Your task to perform on an android device: Open Google Chrome and click the shortcut for Amazon.com Image 0: 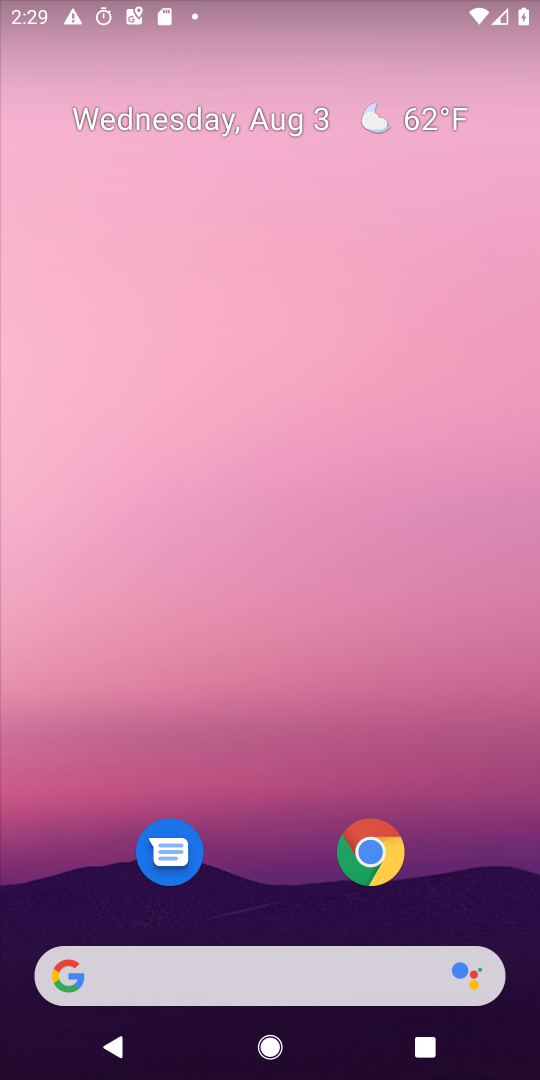
Step 0: drag from (457, 872) to (469, 750)
Your task to perform on an android device: Open Google Chrome and click the shortcut for Amazon.com Image 1: 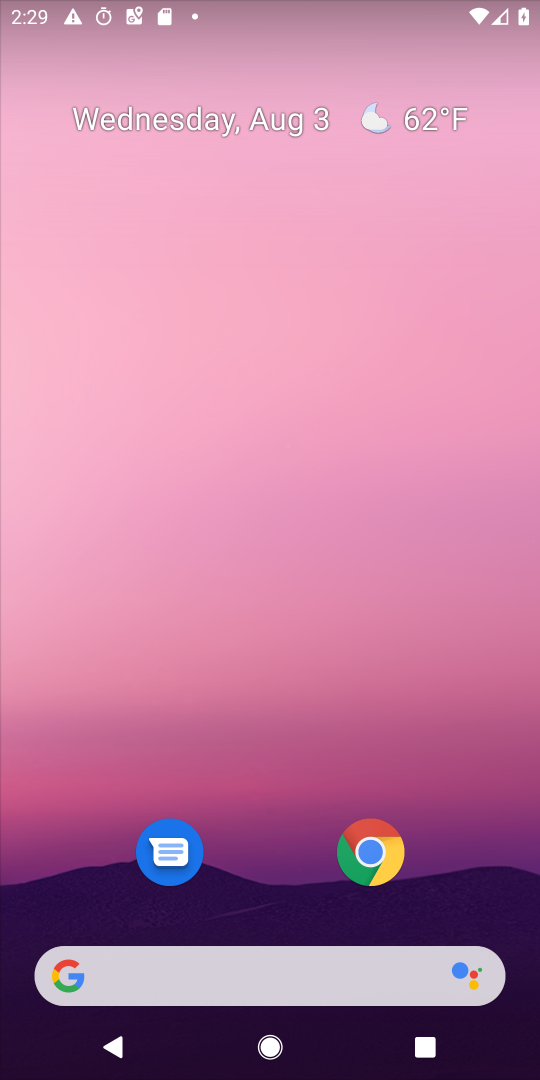
Step 1: drag from (505, 937) to (227, 16)
Your task to perform on an android device: Open Google Chrome and click the shortcut for Amazon.com Image 2: 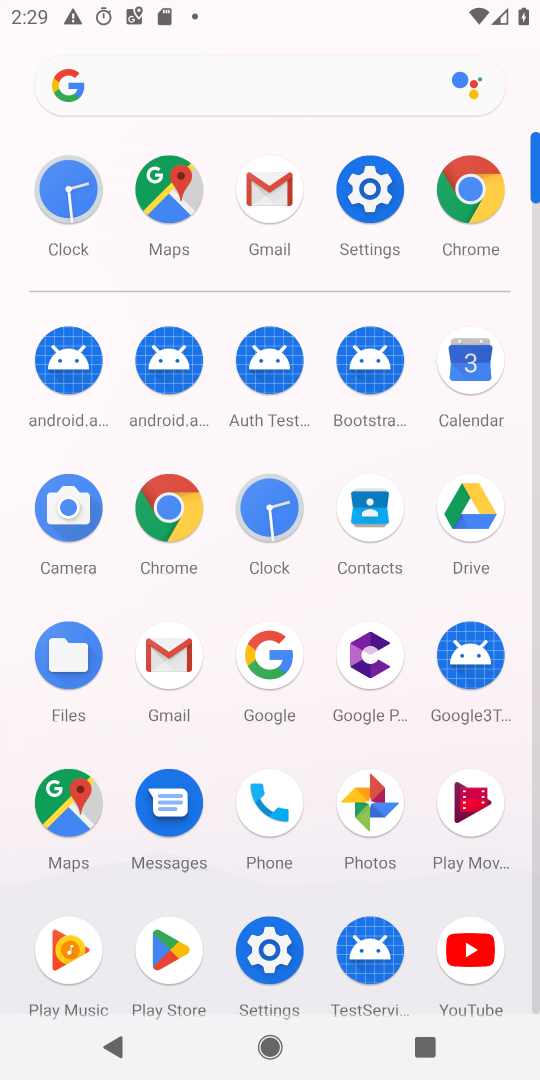
Step 2: click (153, 527)
Your task to perform on an android device: Open Google Chrome and click the shortcut for Amazon.com Image 3: 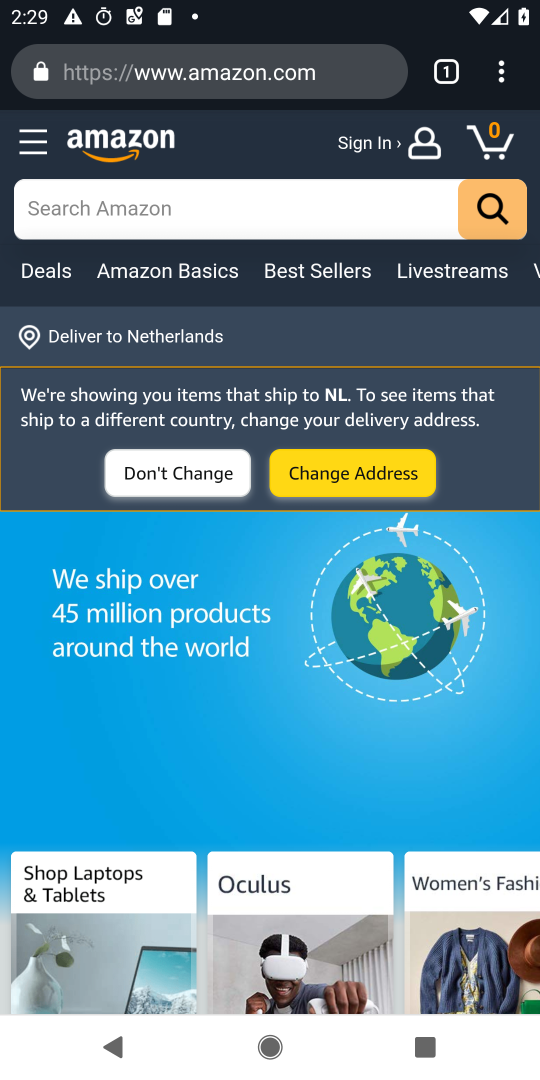
Step 3: task complete